Your task to perform on an android device: Open Google Image 0: 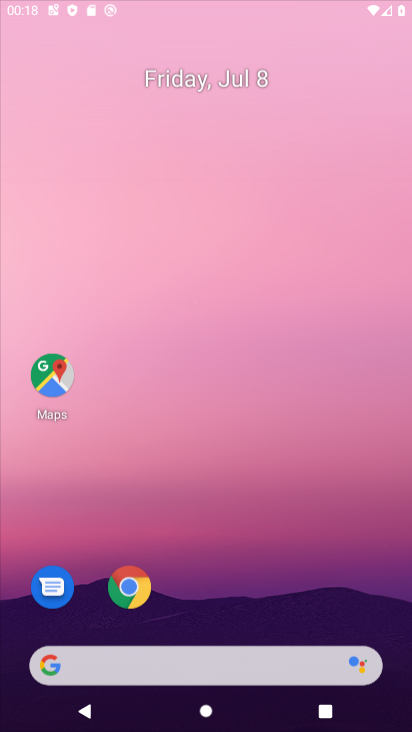
Step 0: click (163, 54)
Your task to perform on an android device: Open Google Image 1: 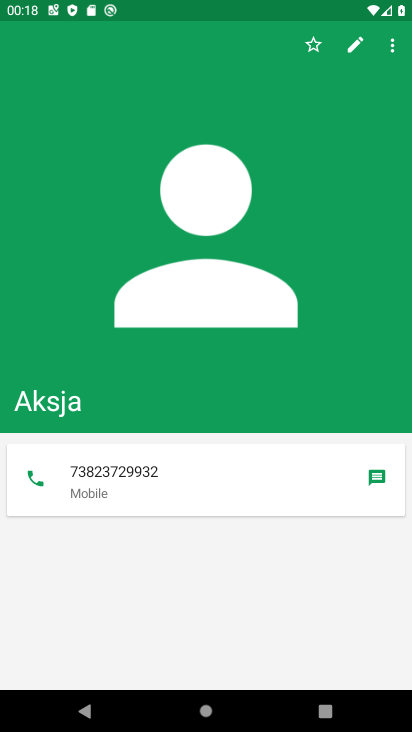
Step 1: press home button
Your task to perform on an android device: Open Google Image 2: 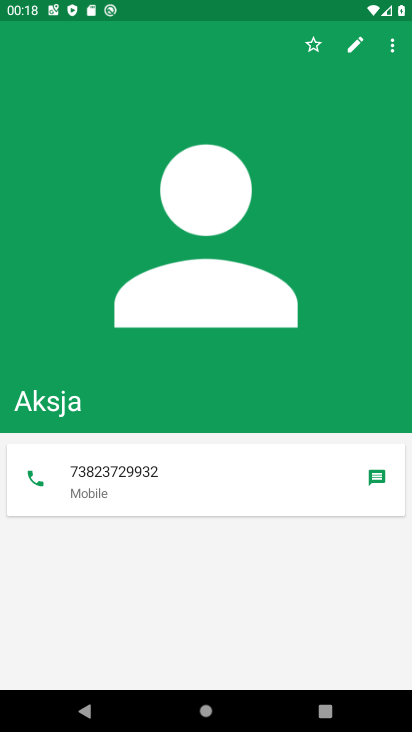
Step 2: drag from (193, 545) to (225, 371)
Your task to perform on an android device: Open Google Image 3: 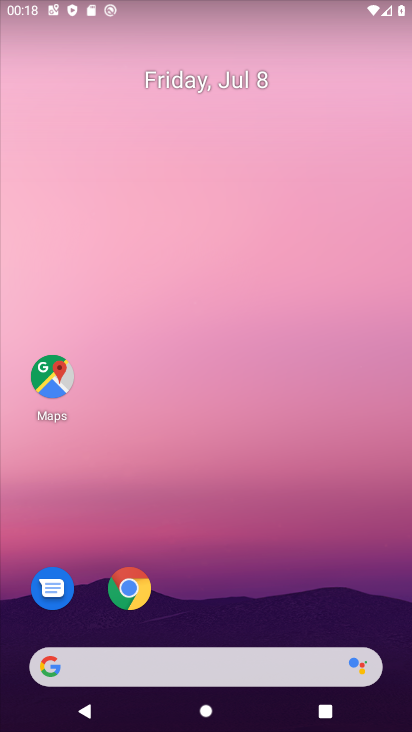
Step 3: drag from (195, 586) to (275, 111)
Your task to perform on an android device: Open Google Image 4: 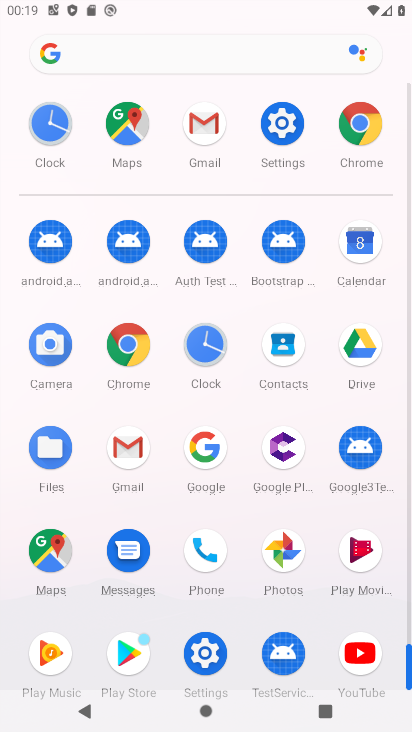
Step 4: click (192, 443)
Your task to perform on an android device: Open Google Image 5: 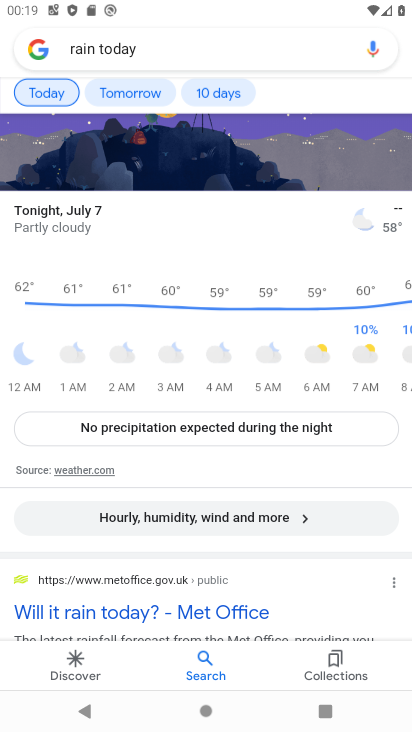
Step 5: drag from (191, 570) to (195, 218)
Your task to perform on an android device: Open Google Image 6: 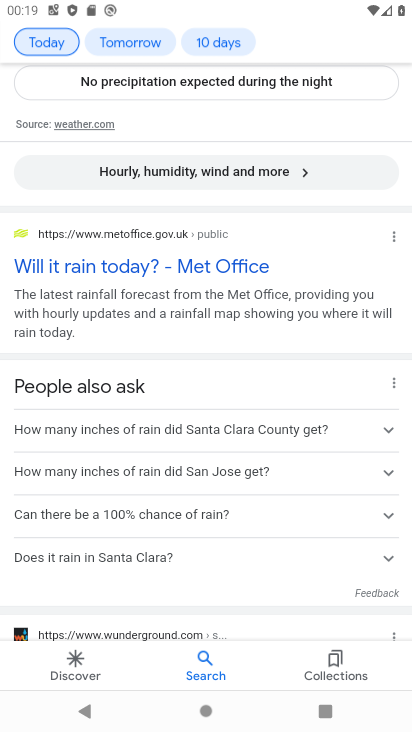
Step 6: drag from (200, 315) to (311, 730)
Your task to perform on an android device: Open Google Image 7: 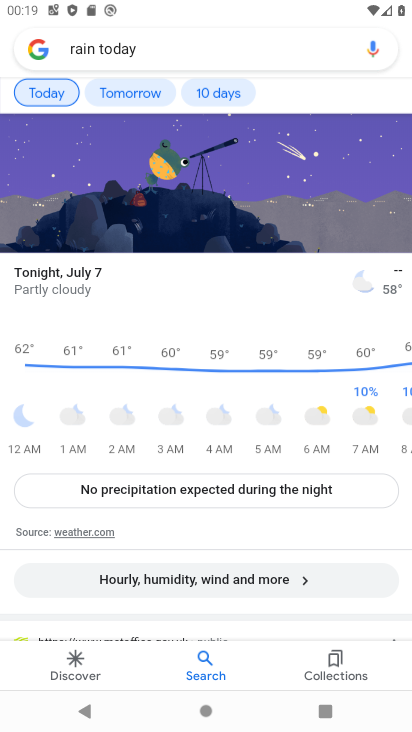
Step 7: drag from (240, 163) to (406, 495)
Your task to perform on an android device: Open Google Image 8: 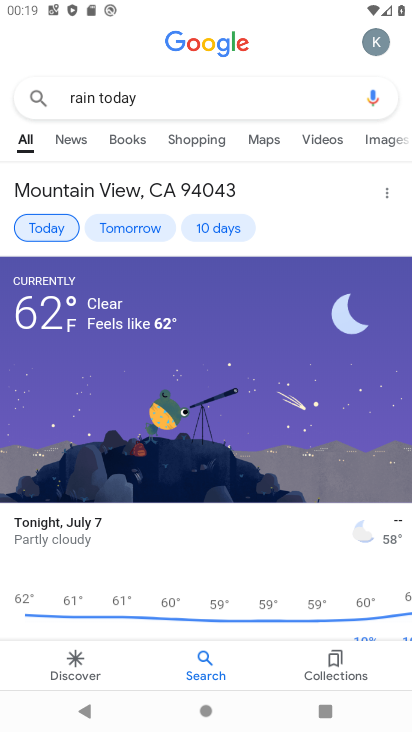
Step 8: press home button
Your task to perform on an android device: Open Google Image 9: 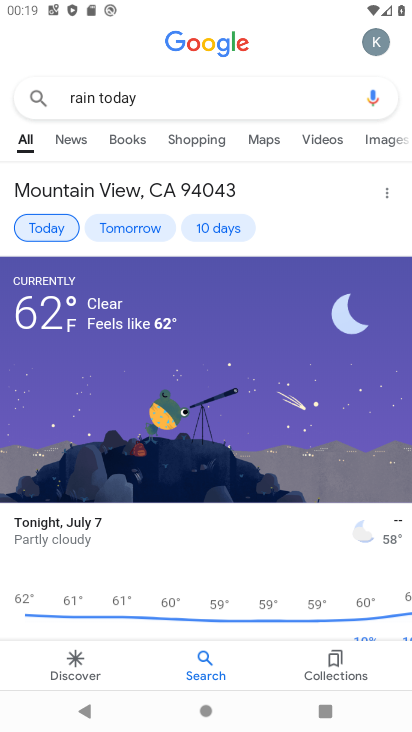
Step 9: click (409, 302)
Your task to perform on an android device: Open Google Image 10: 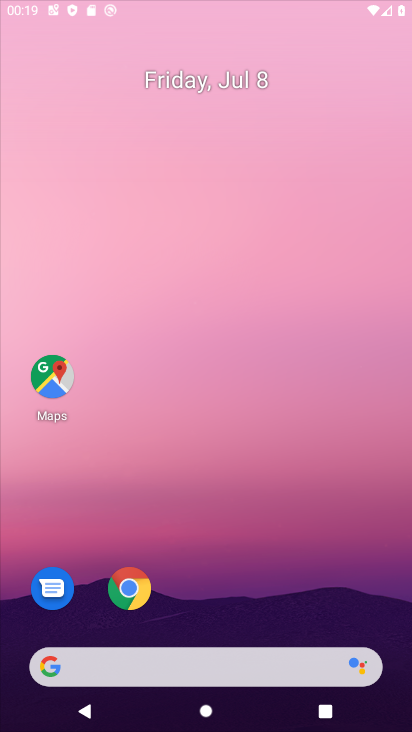
Step 10: drag from (218, 514) to (275, 47)
Your task to perform on an android device: Open Google Image 11: 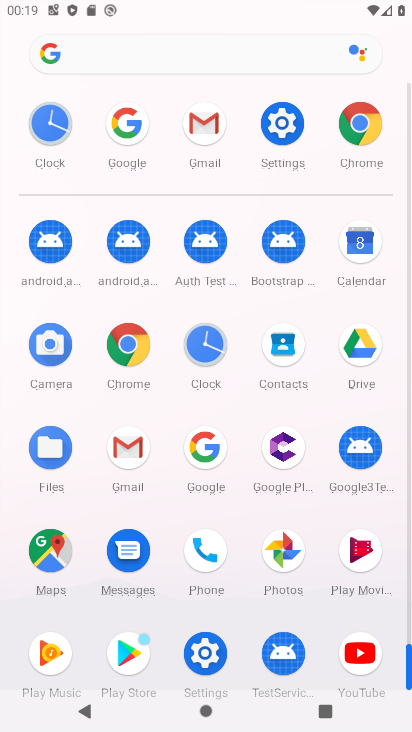
Step 11: click (197, 454)
Your task to perform on an android device: Open Google Image 12: 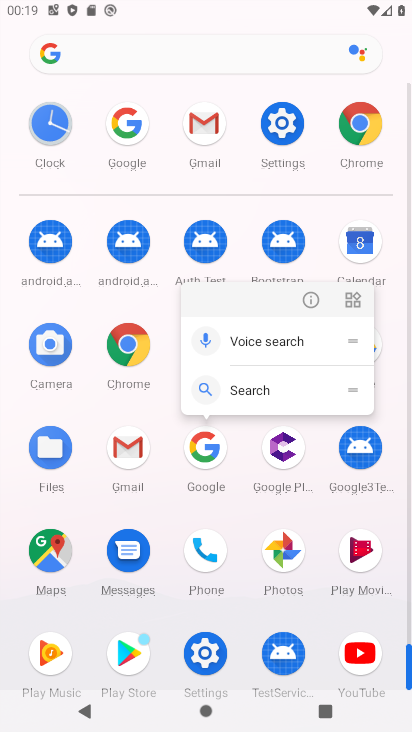
Step 12: click (315, 297)
Your task to perform on an android device: Open Google Image 13: 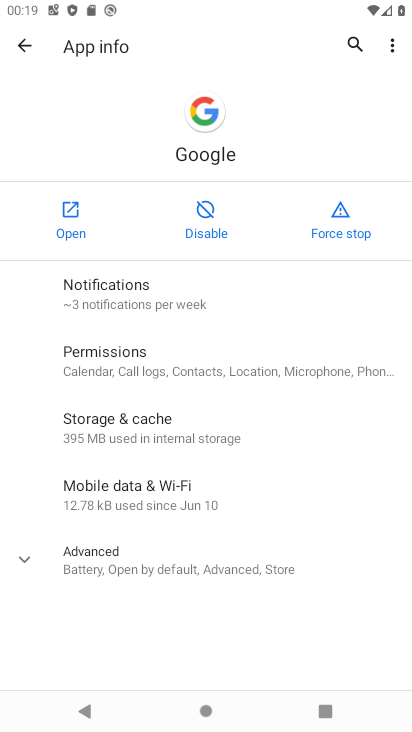
Step 13: drag from (43, 218) to (78, 227)
Your task to perform on an android device: Open Google Image 14: 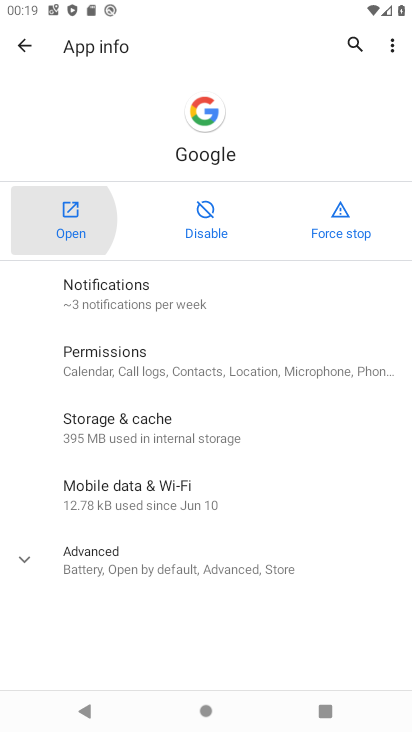
Step 14: click (78, 227)
Your task to perform on an android device: Open Google Image 15: 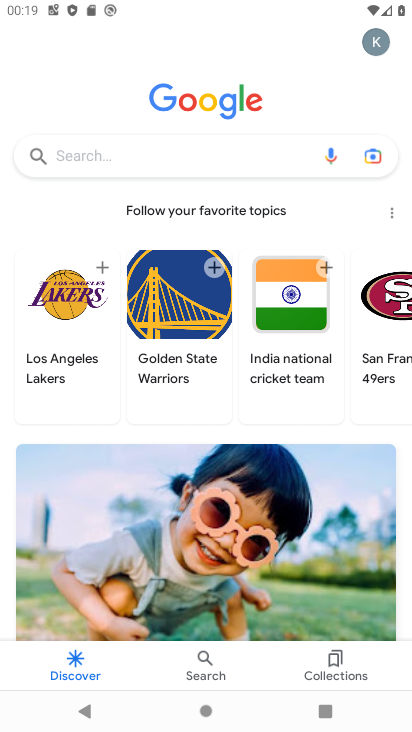
Step 15: task complete